Your task to perform on an android device: toggle airplane mode Image 0: 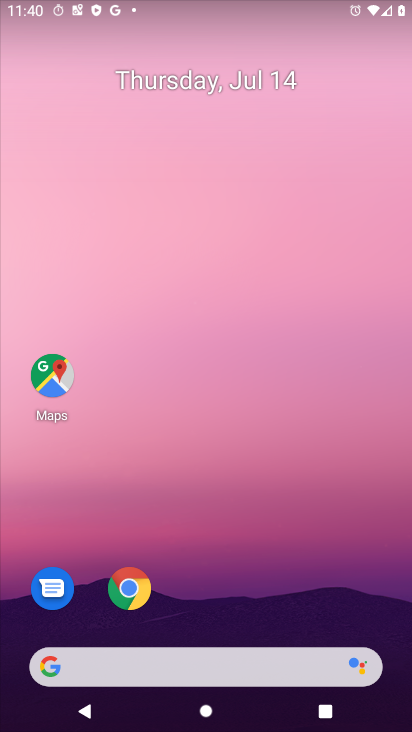
Step 0: press home button
Your task to perform on an android device: toggle airplane mode Image 1: 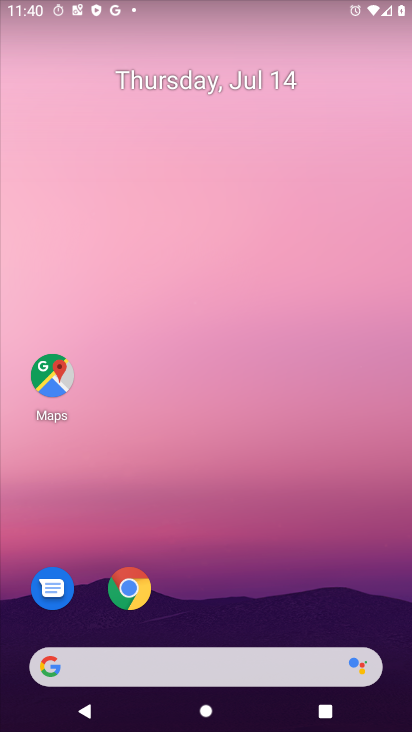
Step 1: drag from (375, 11) to (349, 479)
Your task to perform on an android device: toggle airplane mode Image 2: 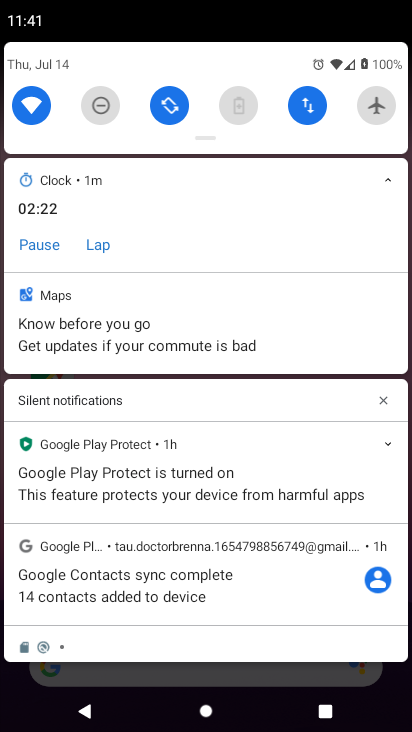
Step 2: click (384, 101)
Your task to perform on an android device: toggle airplane mode Image 3: 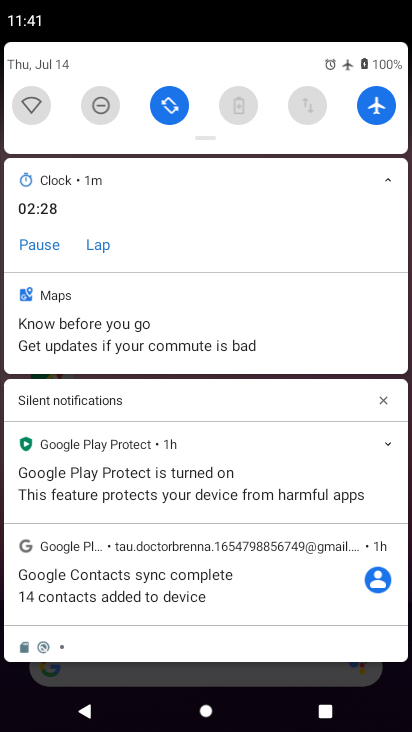
Step 3: task complete